Your task to perform on an android device: Search for Italian restaurants on Maps Image 0: 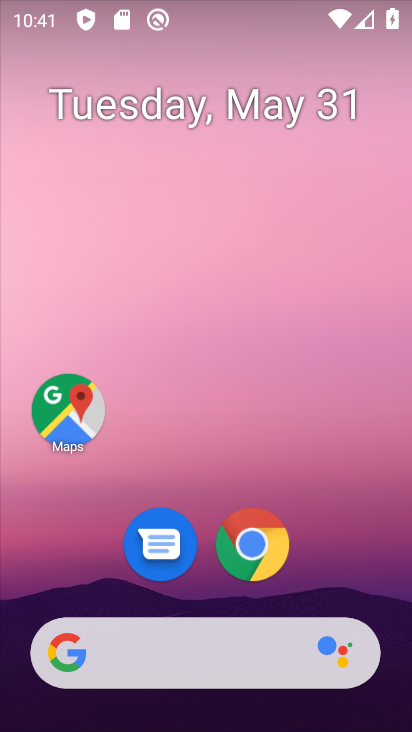
Step 0: click (80, 408)
Your task to perform on an android device: Search for Italian restaurants on Maps Image 1: 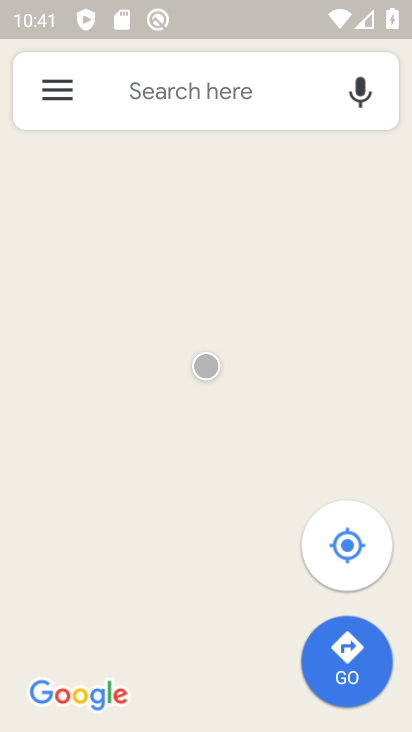
Step 1: click (161, 99)
Your task to perform on an android device: Search for Italian restaurants on Maps Image 2: 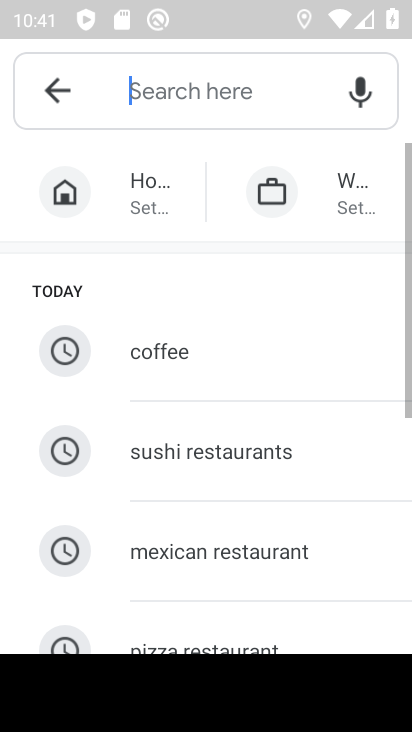
Step 2: type "Italian restaurants"
Your task to perform on an android device: Search for Italian restaurants on Maps Image 3: 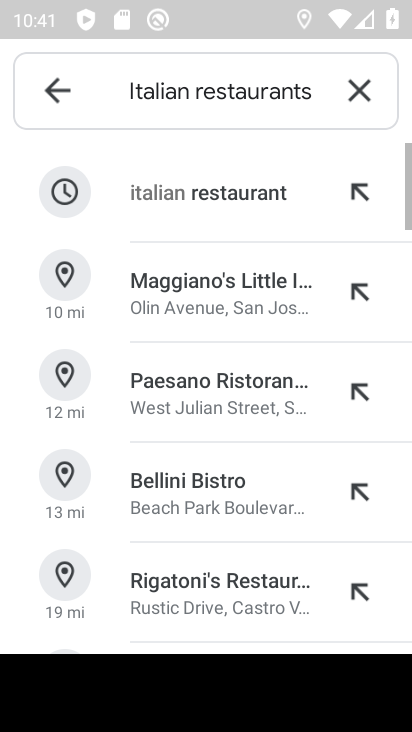
Step 3: click (207, 189)
Your task to perform on an android device: Search for Italian restaurants on Maps Image 4: 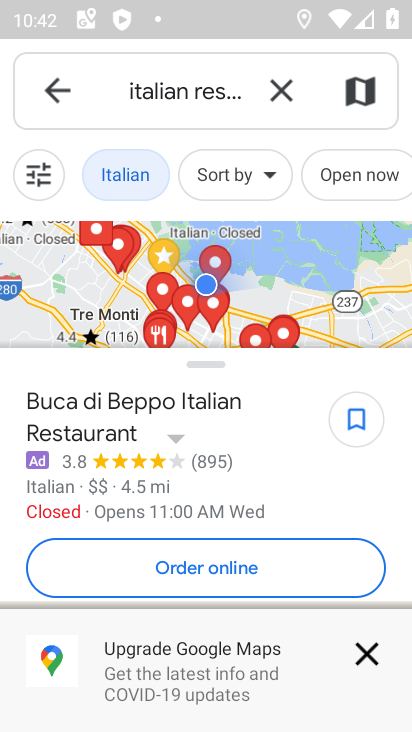
Step 4: task complete